Your task to perform on an android device: turn on sleep mode Image 0: 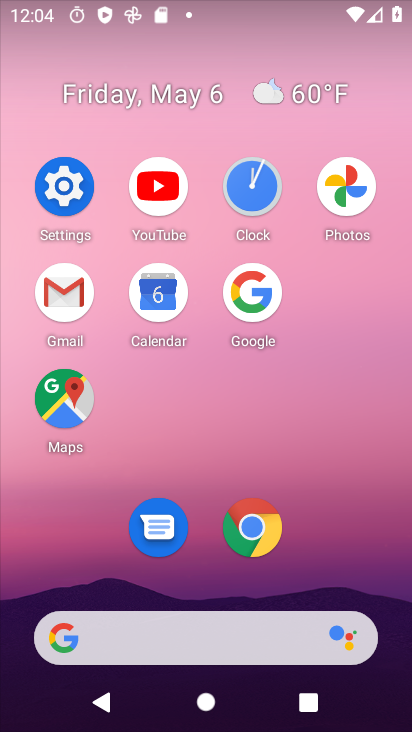
Step 0: click (65, 204)
Your task to perform on an android device: turn on sleep mode Image 1: 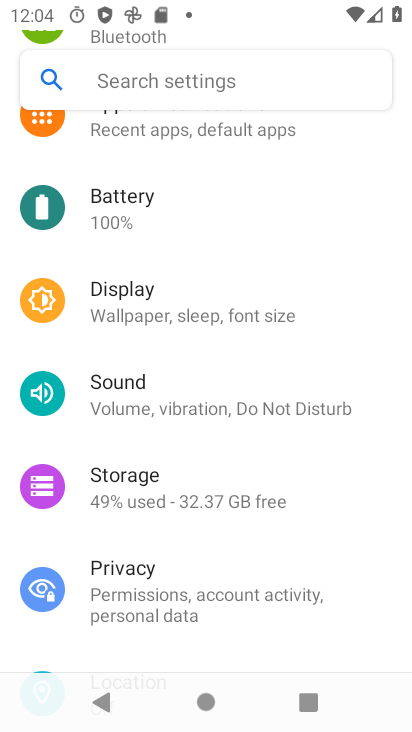
Step 1: click (245, 333)
Your task to perform on an android device: turn on sleep mode Image 2: 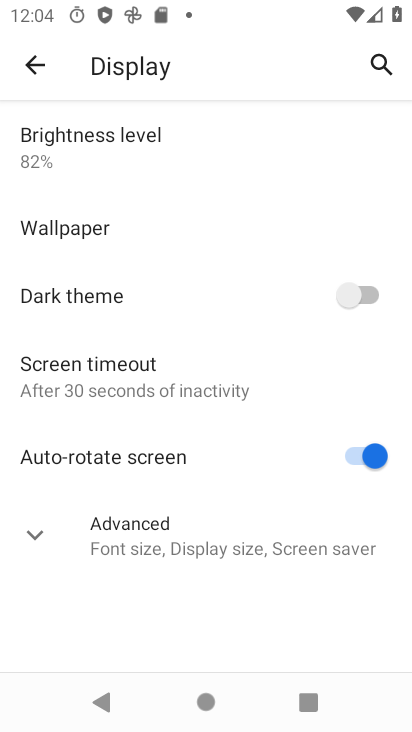
Step 2: task complete